Your task to perform on an android device: Search for sushi restaurants on Maps Image 0: 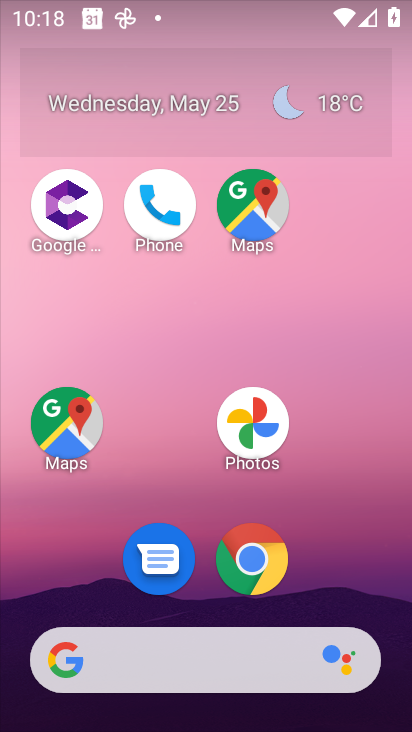
Step 0: click (67, 421)
Your task to perform on an android device: Search for sushi restaurants on Maps Image 1: 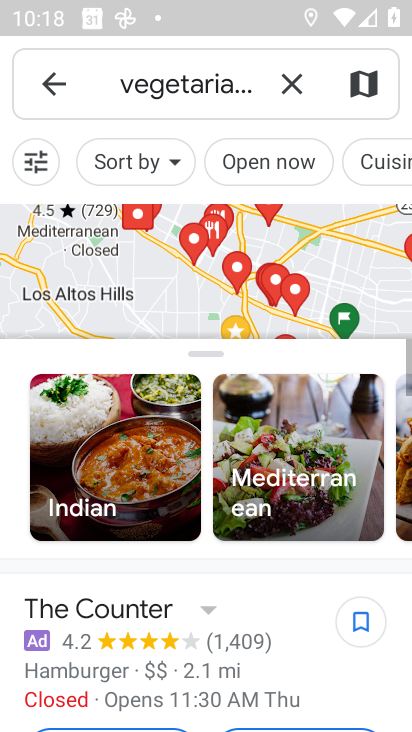
Step 1: click (287, 83)
Your task to perform on an android device: Search for sushi restaurants on Maps Image 2: 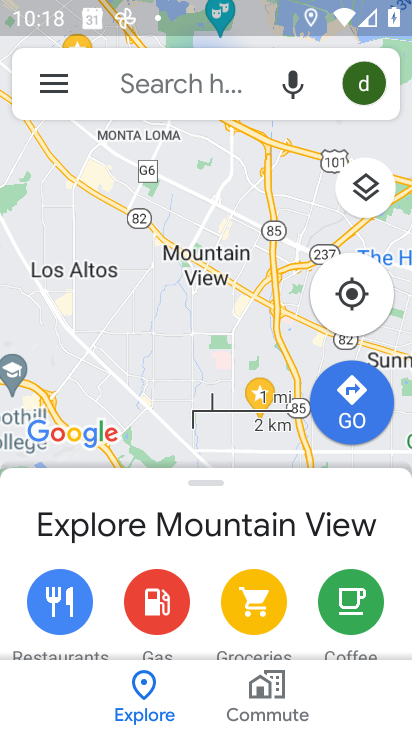
Step 2: click (221, 78)
Your task to perform on an android device: Search for sushi restaurants on Maps Image 3: 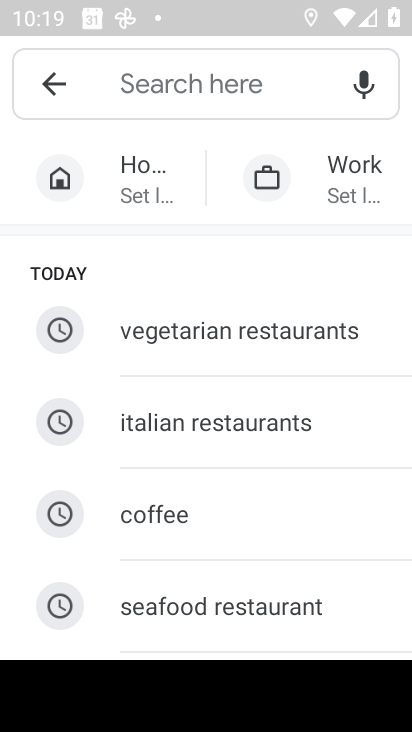
Step 3: type "sushi restaurants"
Your task to perform on an android device: Search for sushi restaurants on Maps Image 4: 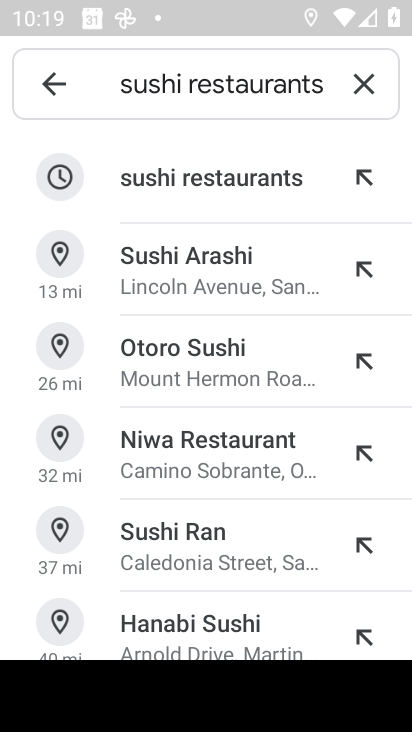
Step 4: click (219, 184)
Your task to perform on an android device: Search for sushi restaurants on Maps Image 5: 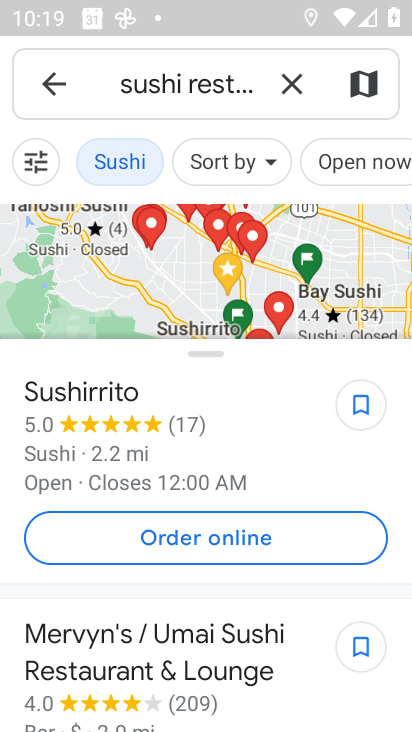
Step 5: task complete